Your task to perform on an android device: Open my contact list Image 0: 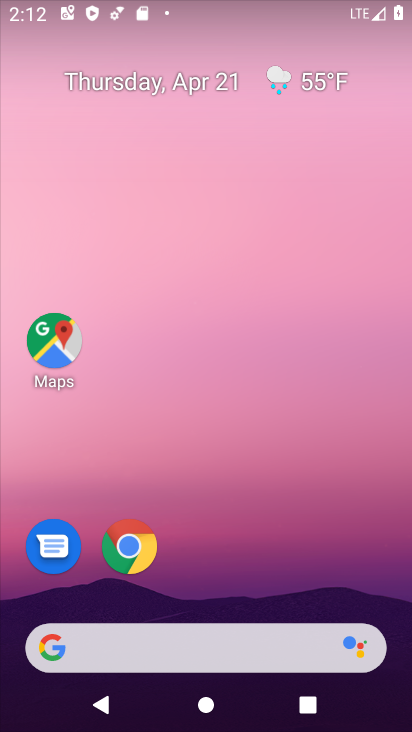
Step 0: drag from (311, 603) to (266, 69)
Your task to perform on an android device: Open my contact list Image 1: 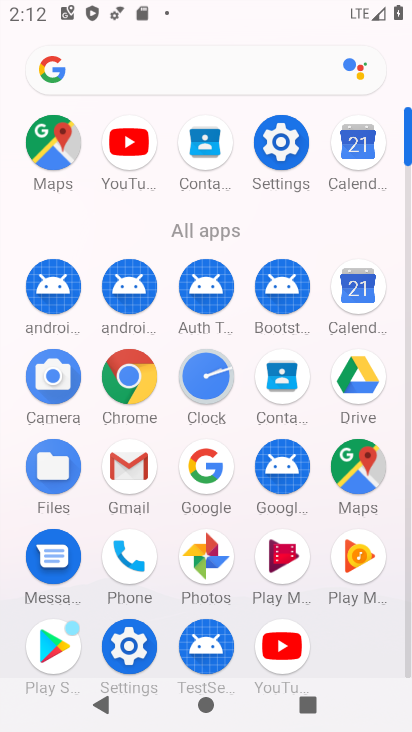
Step 1: click (199, 156)
Your task to perform on an android device: Open my contact list Image 2: 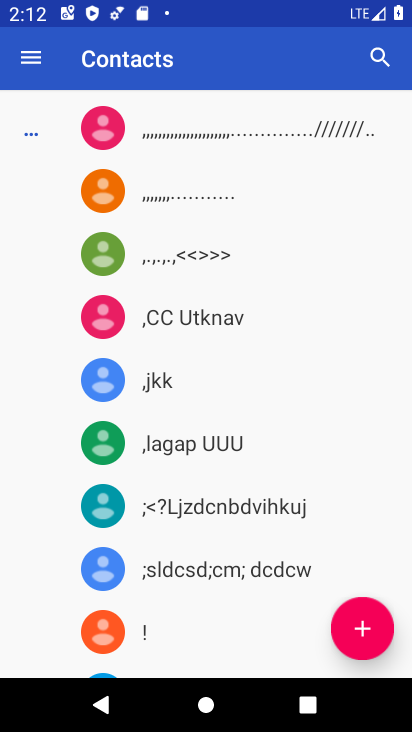
Step 2: task complete